Your task to perform on an android device: Go to sound settings Image 0: 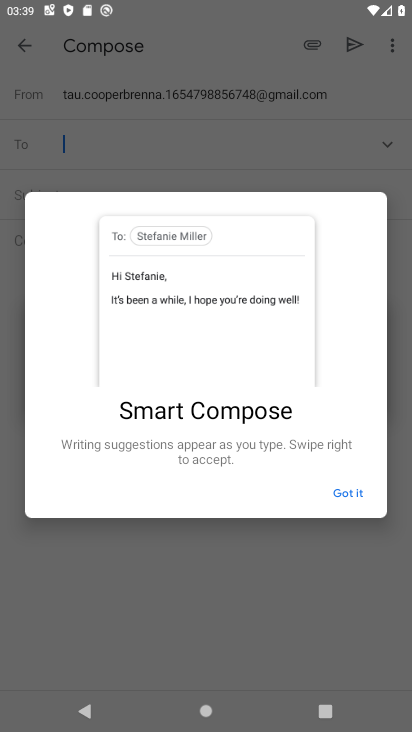
Step 0: click (332, 489)
Your task to perform on an android device: Go to sound settings Image 1: 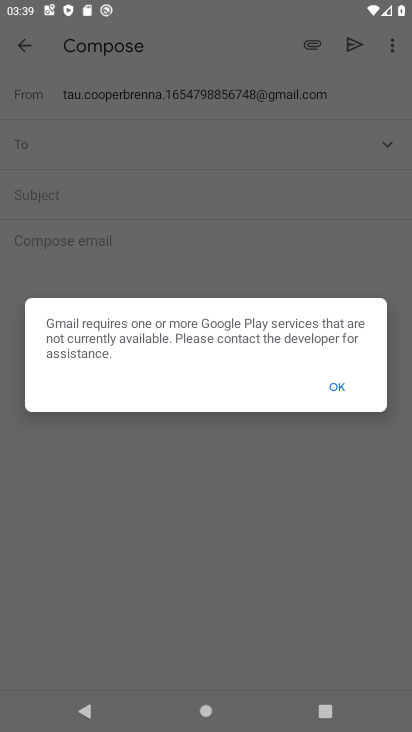
Step 1: click (341, 387)
Your task to perform on an android device: Go to sound settings Image 2: 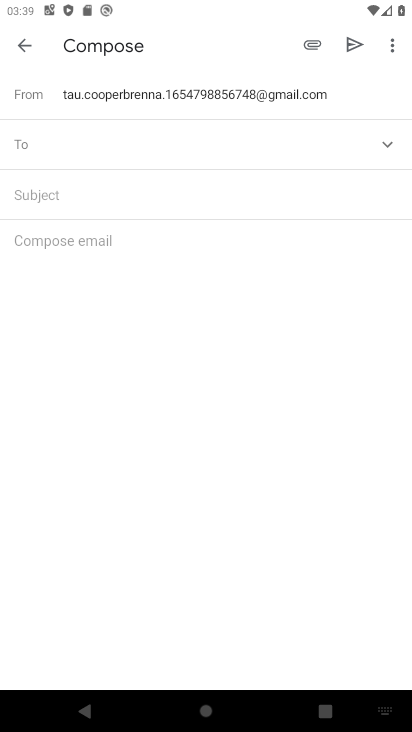
Step 2: click (13, 36)
Your task to perform on an android device: Go to sound settings Image 3: 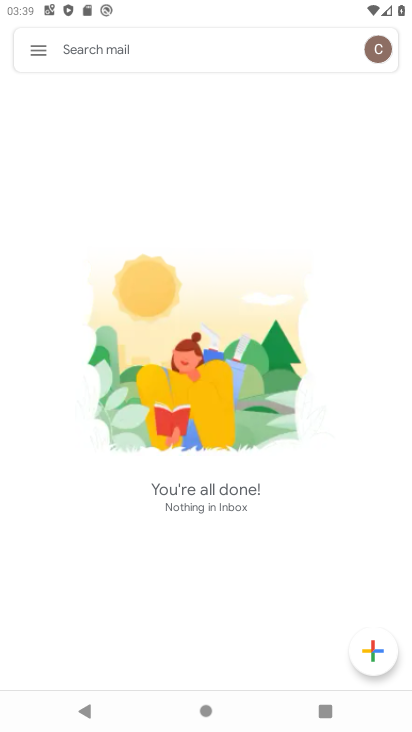
Step 3: press back button
Your task to perform on an android device: Go to sound settings Image 4: 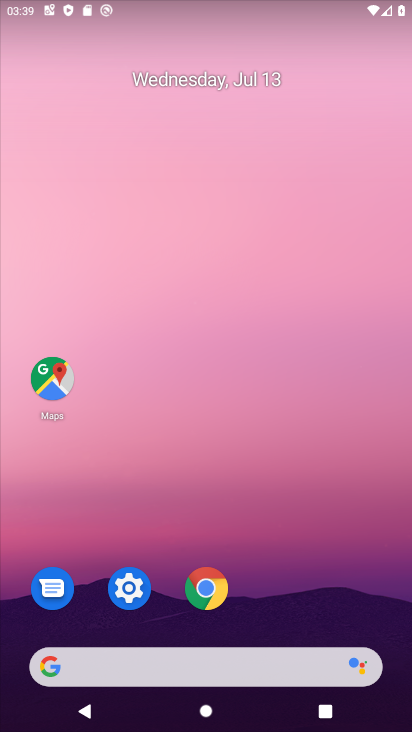
Step 4: drag from (249, 105) to (122, 125)
Your task to perform on an android device: Go to sound settings Image 5: 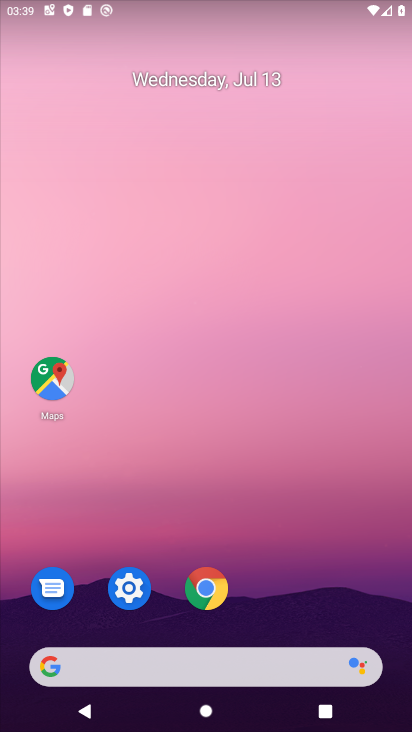
Step 5: drag from (286, 622) to (147, 106)
Your task to perform on an android device: Go to sound settings Image 6: 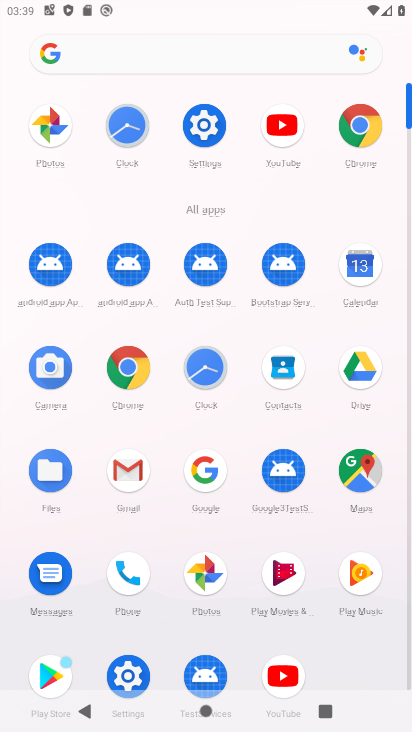
Step 6: drag from (266, 355) to (213, 44)
Your task to perform on an android device: Go to sound settings Image 7: 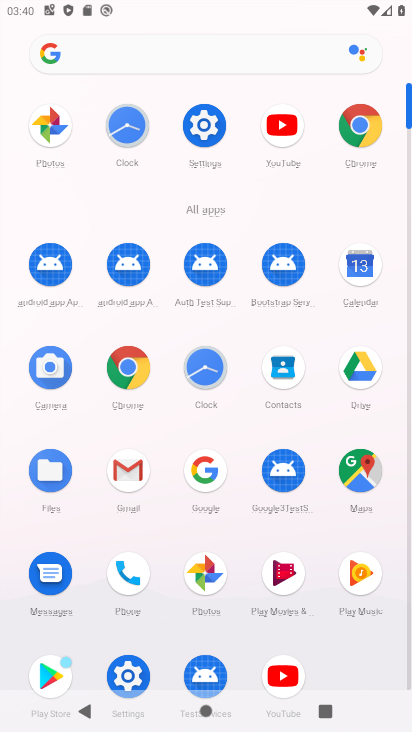
Step 7: click (197, 132)
Your task to perform on an android device: Go to sound settings Image 8: 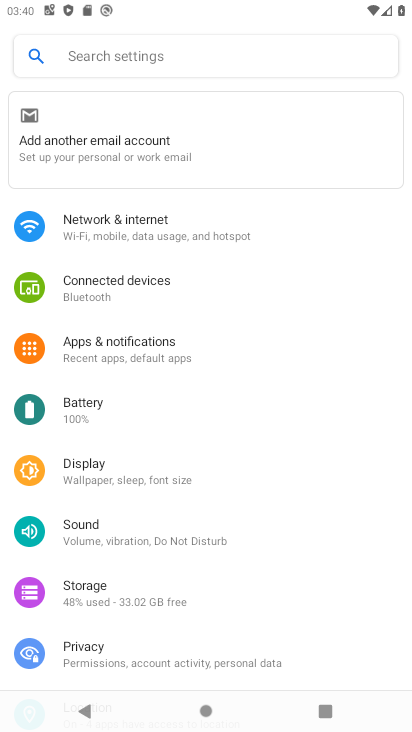
Step 8: click (96, 528)
Your task to perform on an android device: Go to sound settings Image 9: 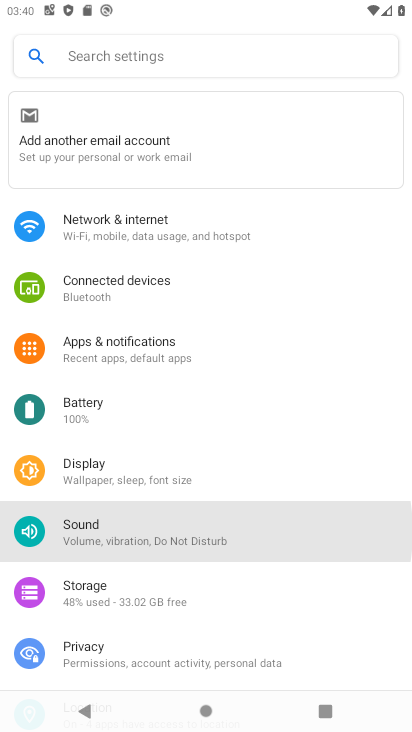
Step 9: click (97, 529)
Your task to perform on an android device: Go to sound settings Image 10: 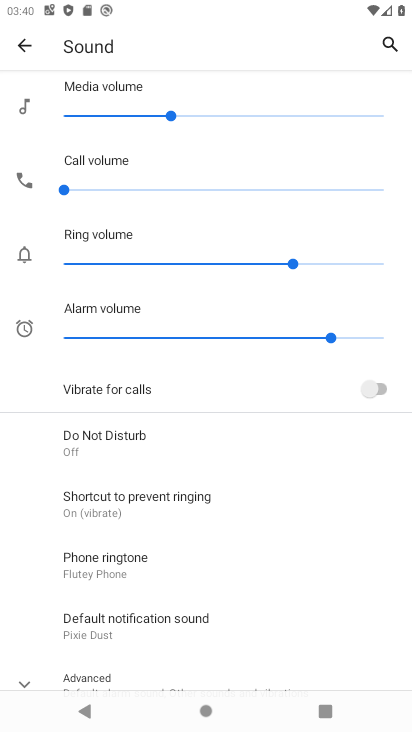
Step 10: task complete